Your task to perform on an android device: add a label to a message in the gmail app Image 0: 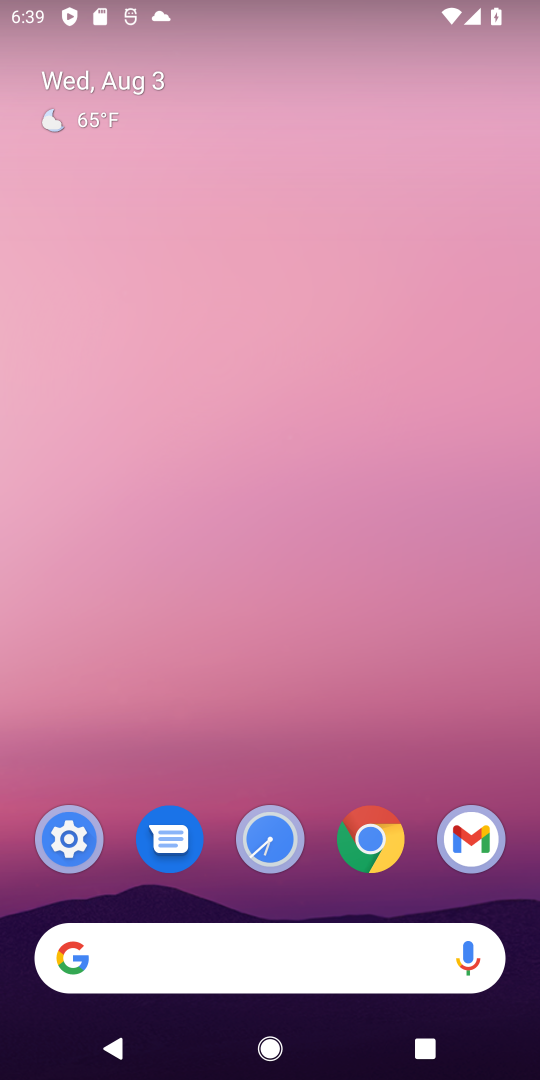
Step 0: click (447, 846)
Your task to perform on an android device: add a label to a message in the gmail app Image 1: 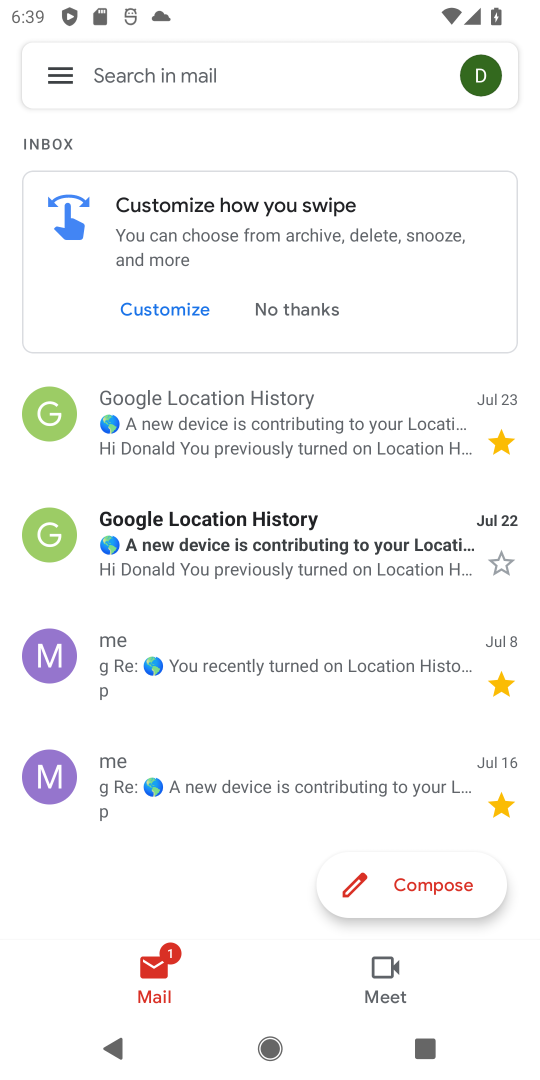
Step 1: click (269, 433)
Your task to perform on an android device: add a label to a message in the gmail app Image 2: 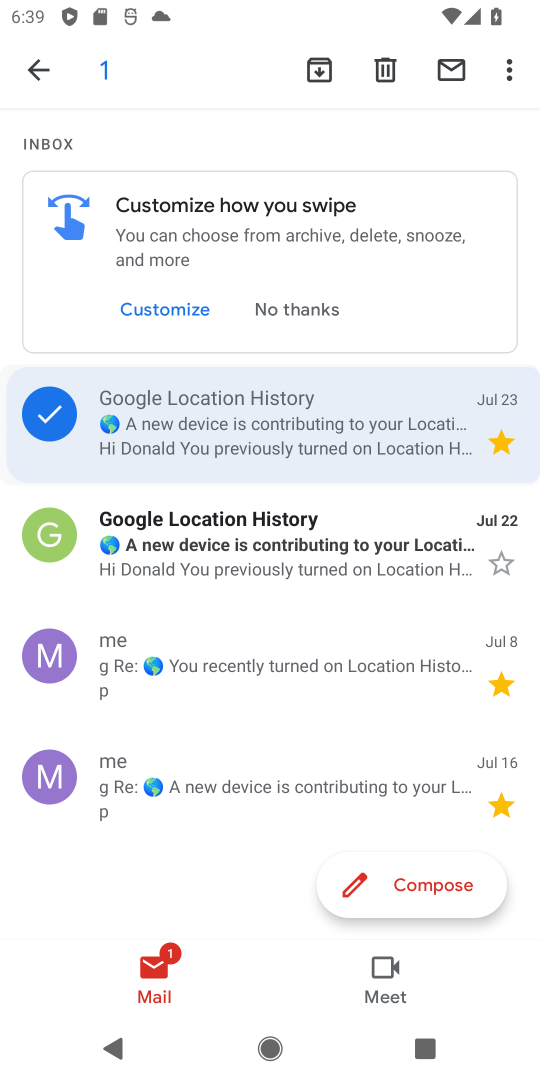
Step 2: click (500, 73)
Your task to perform on an android device: add a label to a message in the gmail app Image 3: 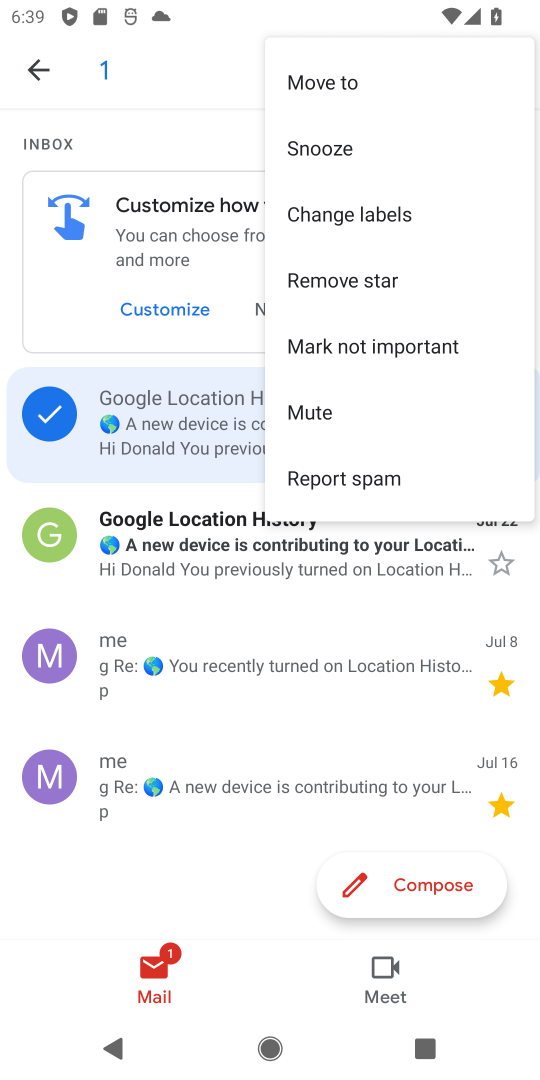
Step 3: click (353, 214)
Your task to perform on an android device: add a label to a message in the gmail app Image 4: 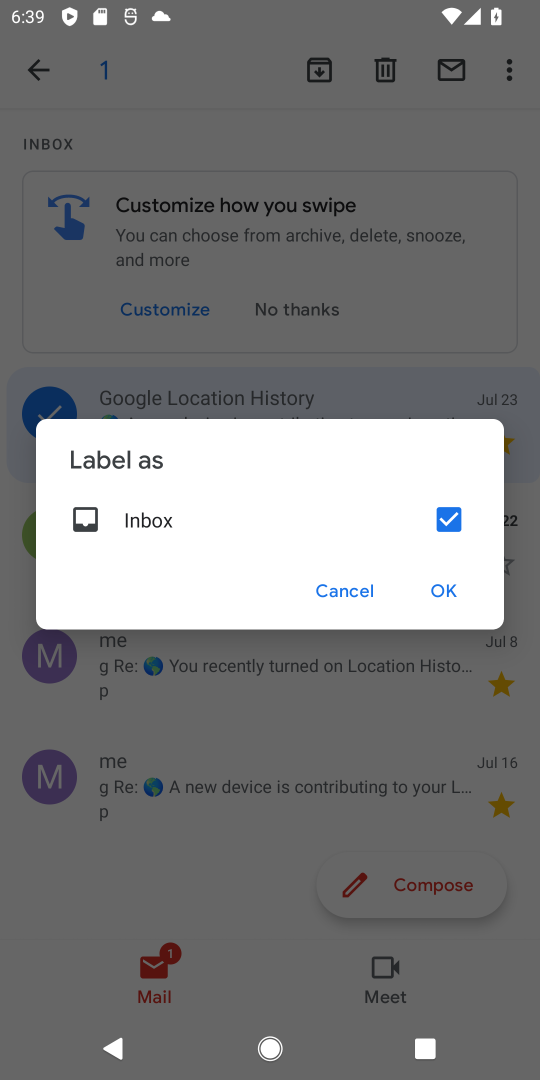
Step 4: click (442, 599)
Your task to perform on an android device: add a label to a message in the gmail app Image 5: 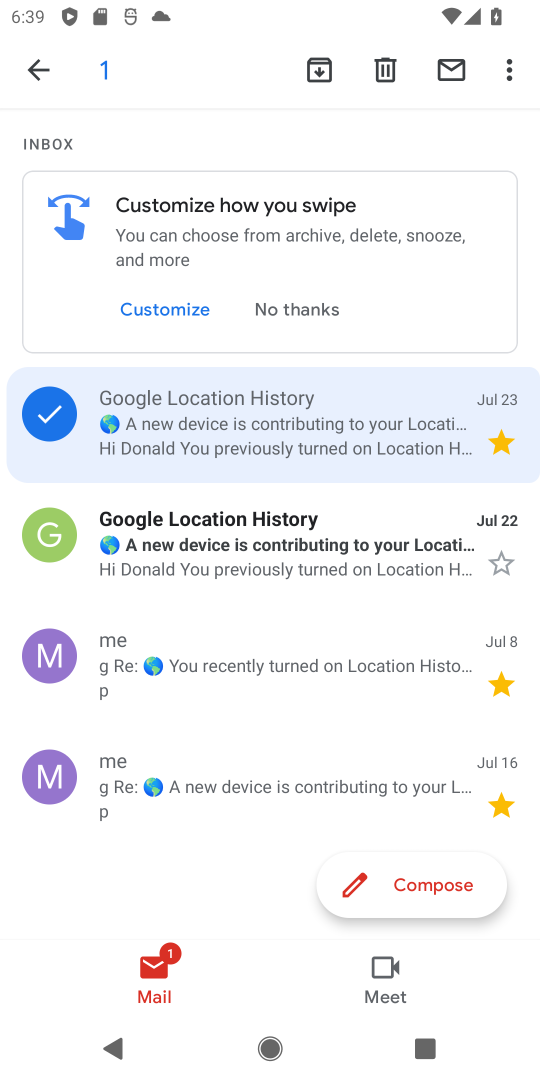
Step 5: task complete